Your task to perform on an android device: delete a single message in the gmail app Image 0: 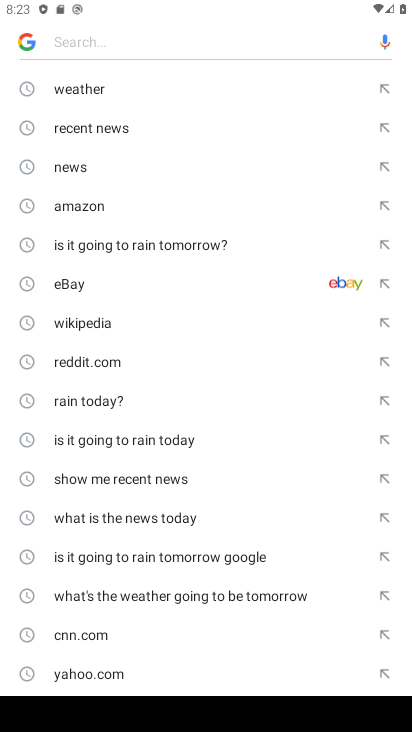
Step 0: press home button
Your task to perform on an android device: delete a single message in the gmail app Image 1: 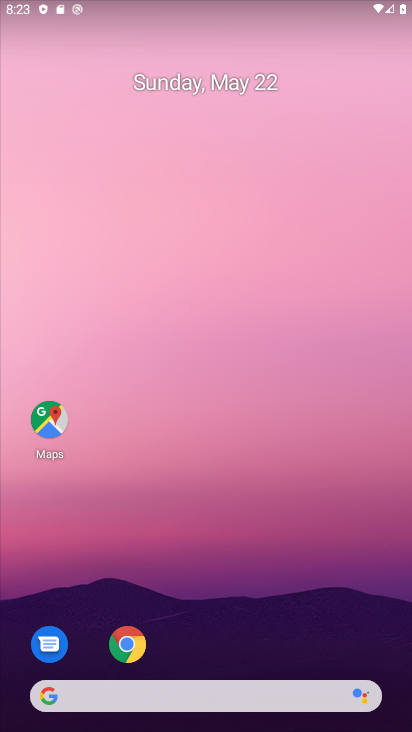
Step 1: drag from (214, 680) to (271, 187)
Your task to perform on an android device: delete a single message in the gmail app Image 2: 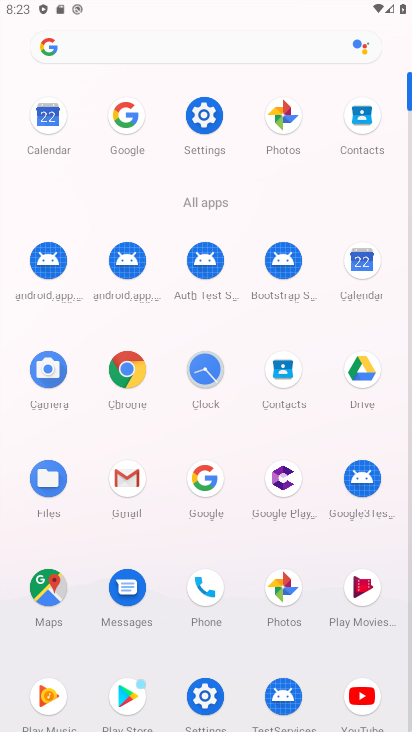
Step 2: click (121, 473)
Your task to perform on an android device: delete a single message in the gmail app Image 3: 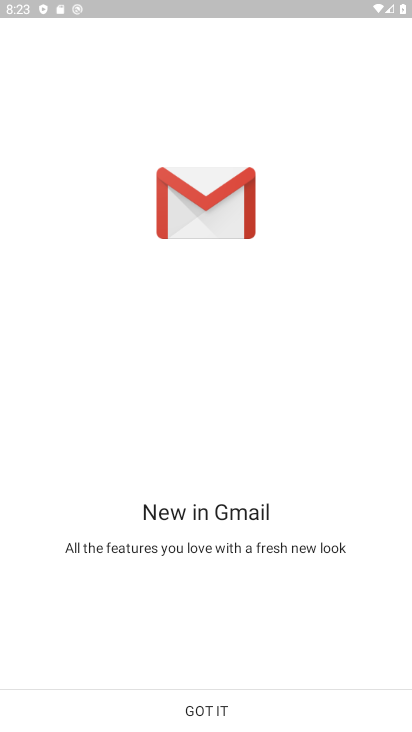
Step 3: click (165, 712)
Your task to perform on an android device: delete a single message in the gmail app Image 4: 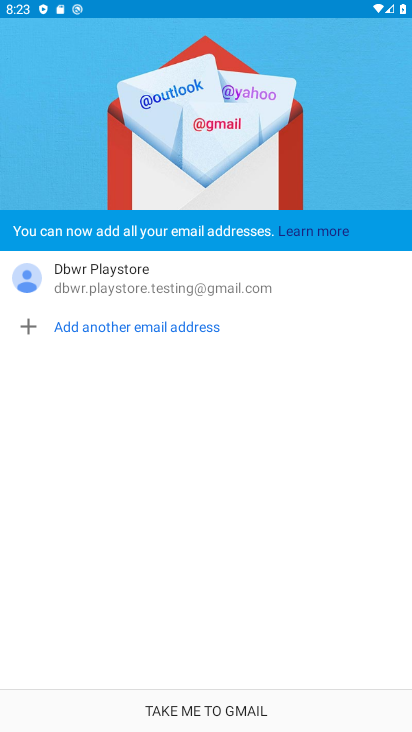
Step 4: click (165, 712)
Your task to perform on an android device: delete a single message in the gmail app Image 5: 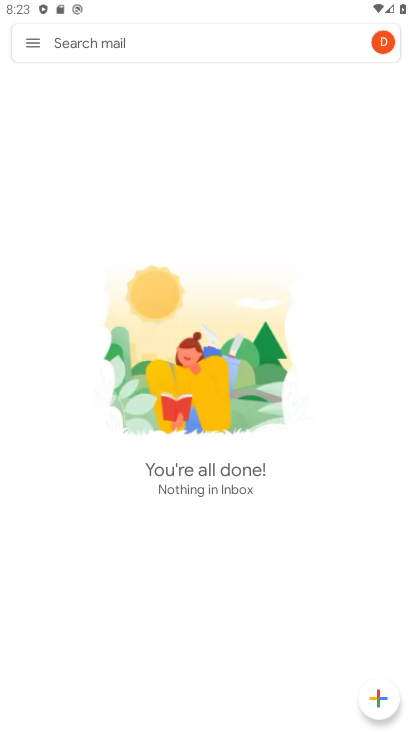
Step 5: click (35, 43)
Your task to perform on an android device: delete a single message in the gmail app Image 6: 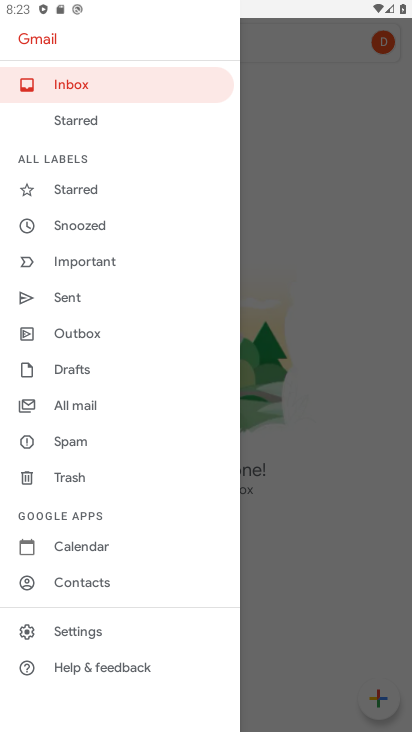
Step 6: click (69, 401)
Your task to perform on an android device: delete a single message in the gmail app Image 7: 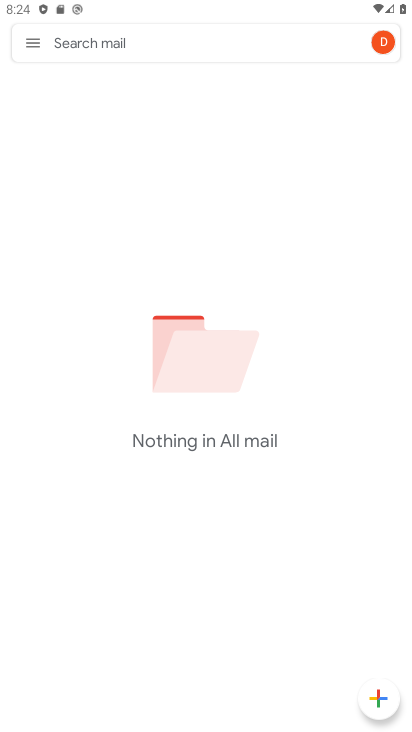
Step 7: task complete